Your task to perform on an android device: open device folders in google photos Image 0: 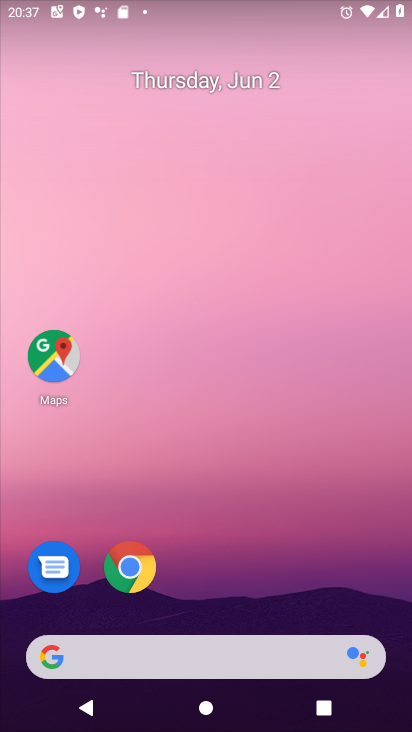
Step 0: drag from (256, 588) to (161, 76)
Your task to perform on an android device: open device folders in google photos Image 1: 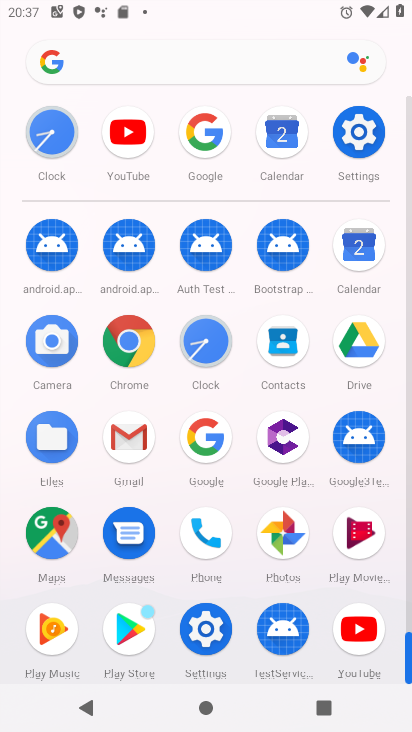
Step 1: drag from (245, 450) to (252, 312)
Your task to perform on an android device: open device folders in google photos Image 2: 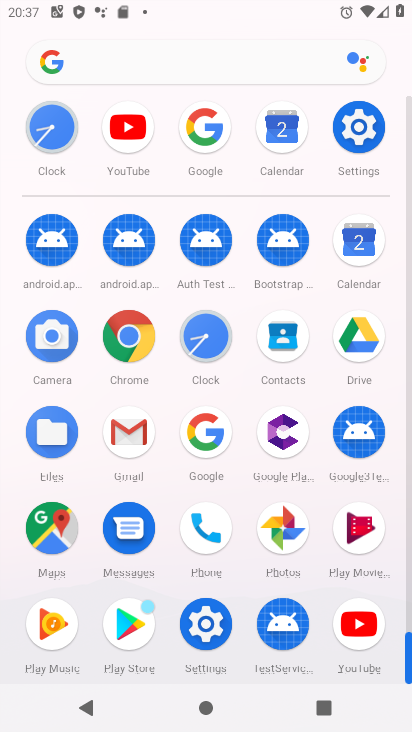
Step 2: click (283, 529)
Your task to perform on an android device: open device folders in google photos Image 3: 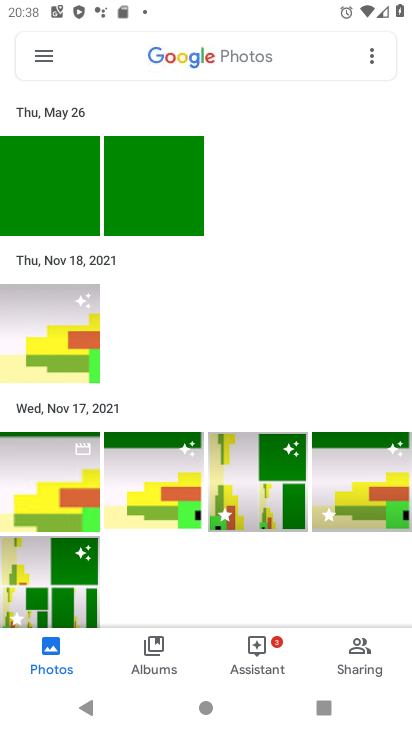
Step 3: click (37, 55)
Your task to perform on an android device: open device folders in google photos Image 4: 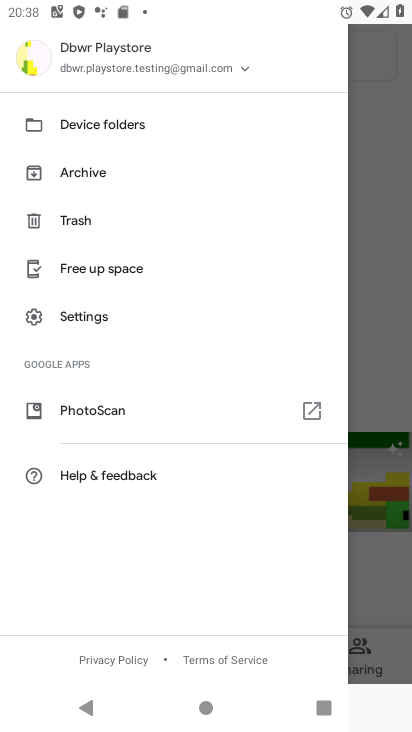
Step 4: click (90, 133)
Your task to perform on an android device: open device folders in google photos Image 5: 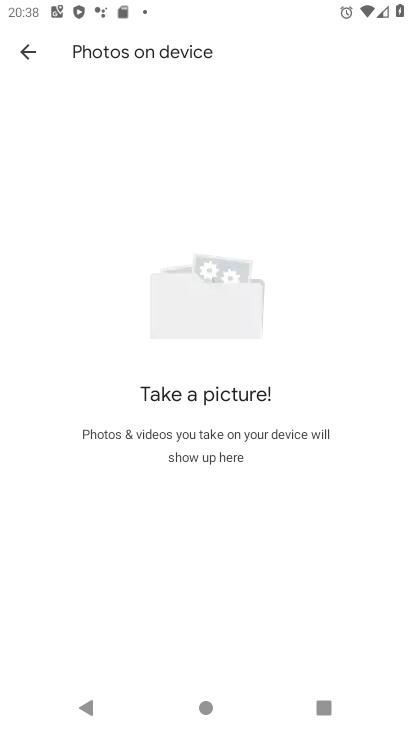
Step 5: task complete